Your task to perform on an android device: Add "acer nitro" to the cart on ebay Image 0: 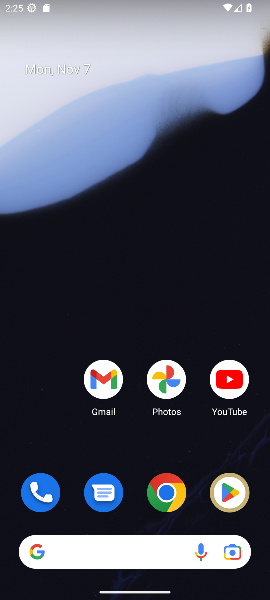
Step 0: click (167, 501)
Your task to perform on an android device: Add "acer nitro" to the cart on ebay Image 1: 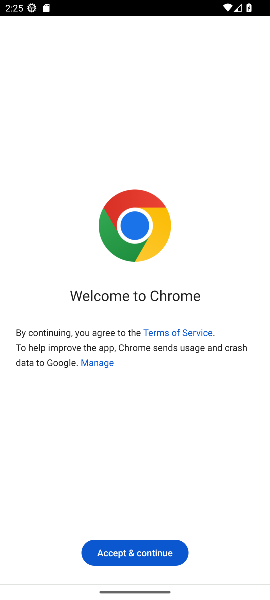
Step 1: click (124, 553)
Your task to perform on an android device: Add "acer nitro" to the cart on ebay Image 2: 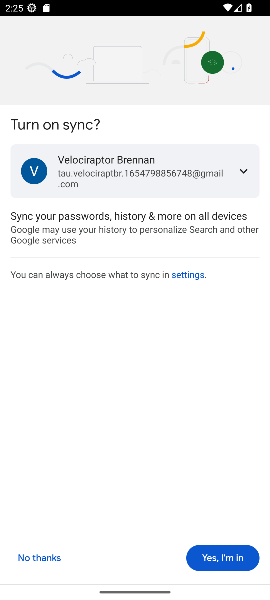
Step 2: click (38, 557)
Your task to perform on an android device: Add "acer nitro" to the cart on ebay Image 3: 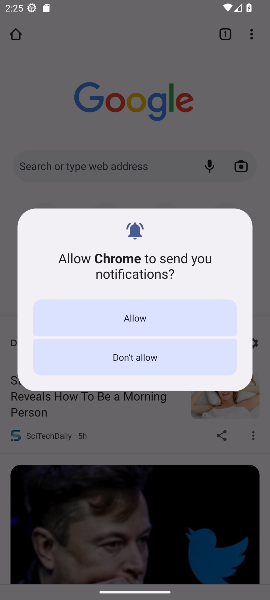
Step 3: click (137, 318)
Your task to perform on an android device: Add "acer nitro" to the cart on ebay Image 4: 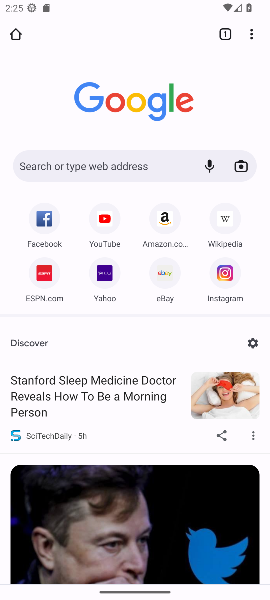
Step 4: click (165, 274)
Your task to perform on an android device: Add "acer nitro" to the cart on ebay Image 5: 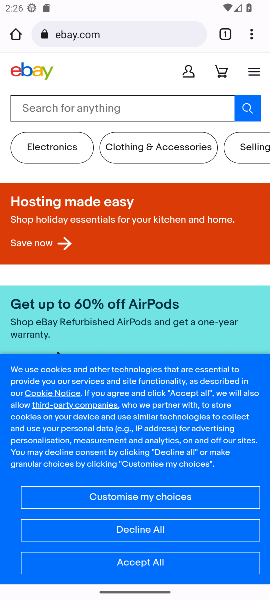
Step 5: click (128, 110)
Your task to perform on an android device: Add "acer nitro" to the cart on ebay Image 6: 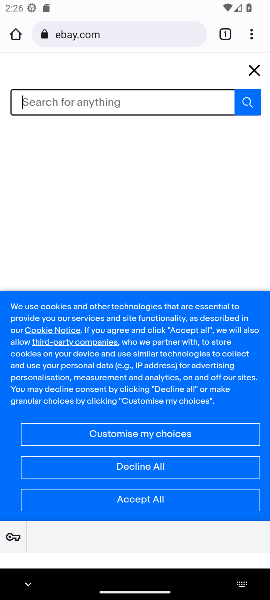
Step 6: type "acer nitro"
Your task to perform on an android device: Add "acer nitro" to the cart on ebay Image 7: 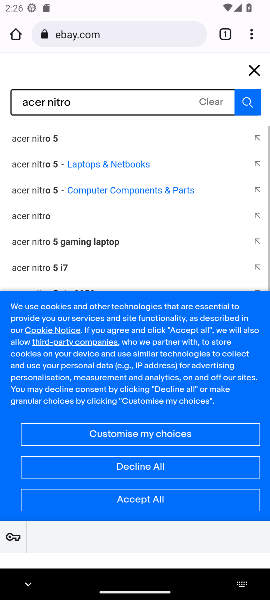
Step 7: press enter
Your task to perform on an android device: Add "acer nitro" to the cart on ebay Image 8: 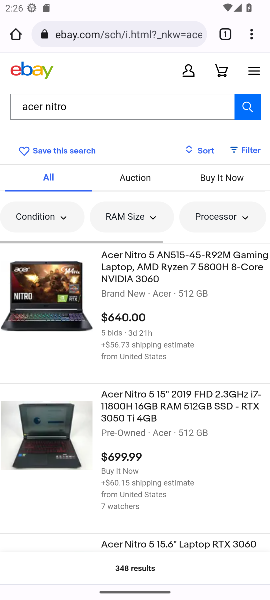
Step 8: click (156, 271)
Your task to perform on an android device: Add "acer nitro" to the cart on ebay Image 9: 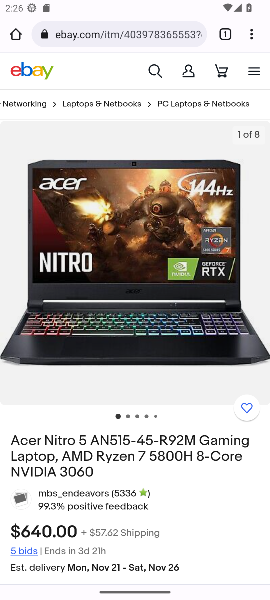
Step 9: drag from (162, 424) to (143, 224)
Your task to perform on an android device: Add "acer nitro" to the cart on ebay Image 10: 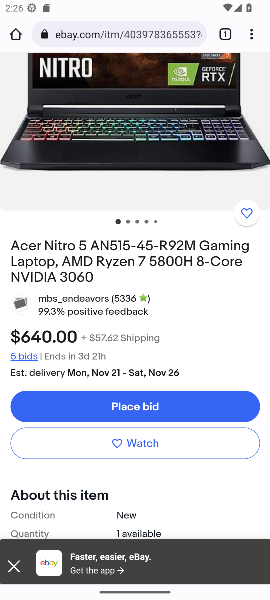
Step 10: drag from (192, 493) to (168, 73)
Your task to perform on an android device: Add "acer nitro" to the cart on ebay Image 11: 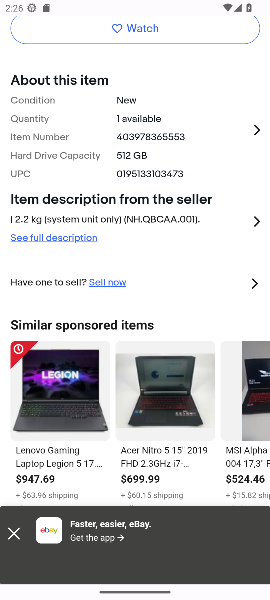
Step 11: press back button
Your task to perform on an android device: Add "acer nitro" to the cart on ebay Image 12: 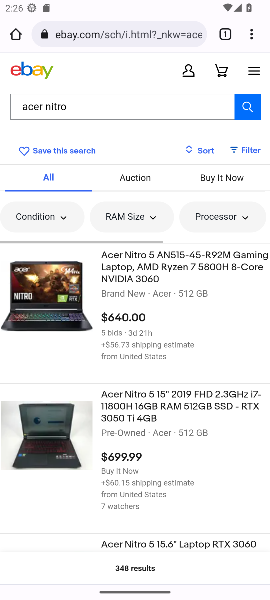
Step 12: drag from (222, 497) to (187, 142)
Your task to perform on an android device: Add "acer nitro" to the cart on ebay Image 13: 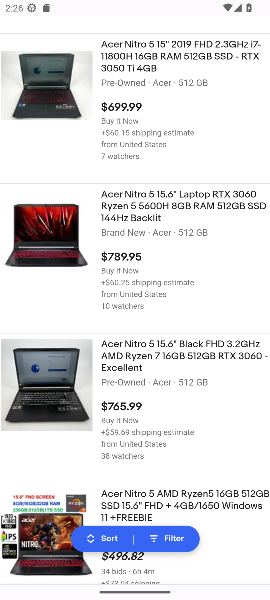
Step 13: click (129, 209)
Your task to perform on an android device: Add "acer nitro" to the cart on ebay Image 14: 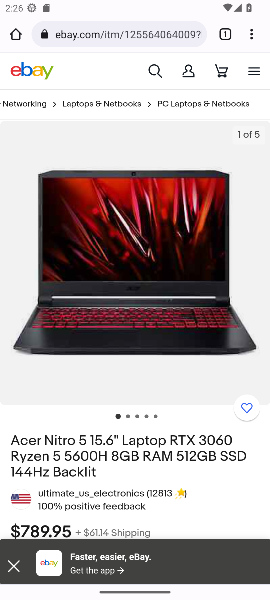
Step 14: drag from (238, 528) to (225, 220)
Your task to perform on an android device: Add "acer nitro" to the cart on ebay Image 15: 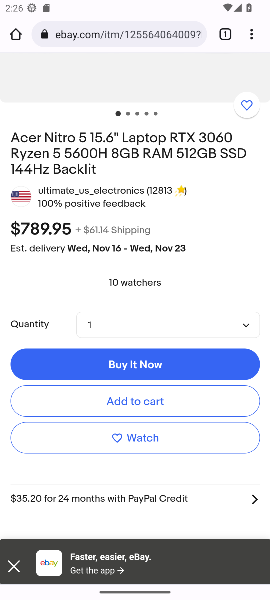
Step 15: click (135, 397)
Your task to perform on an android device: Add "acer nitro" to the cart on ebay Image 16: 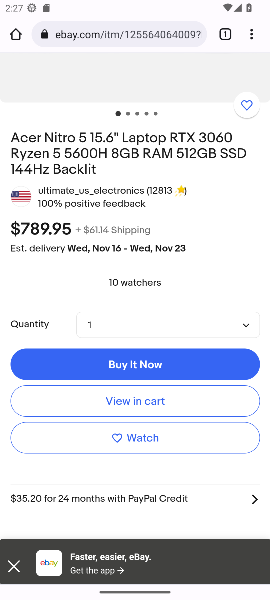
Step 16: task complete